Your task to perform on an android device: Open Chrome and go to settings Image 0: 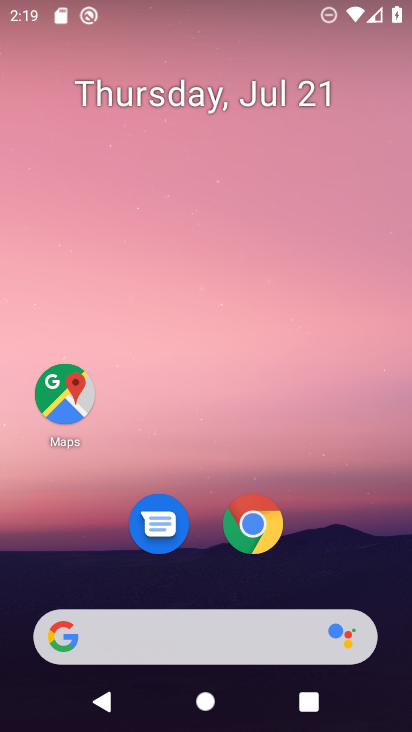
Step 0: click (262, 534)
Your task to perform on an android device: Open Chrome and go to settings Image 1: 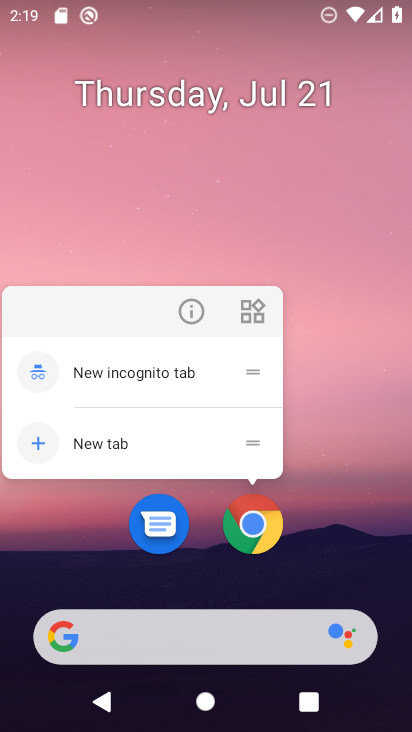
Step 1: click (250, 528)
Your task to perform on an android device: Open Chrome and go to settings Image 2: 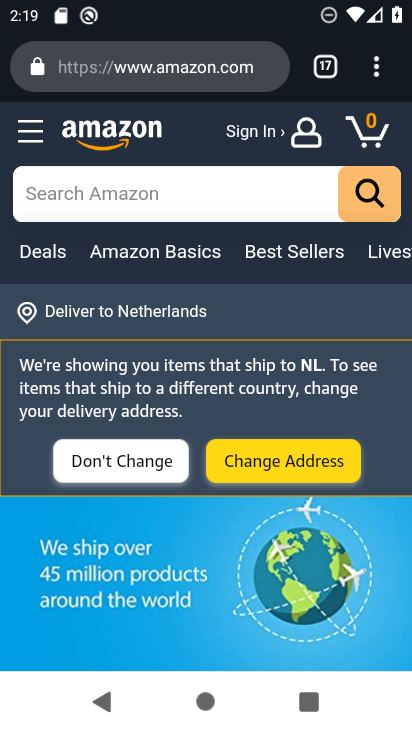
Step 2: task complete